Your task to perform on an android device: delete location history Image 0: 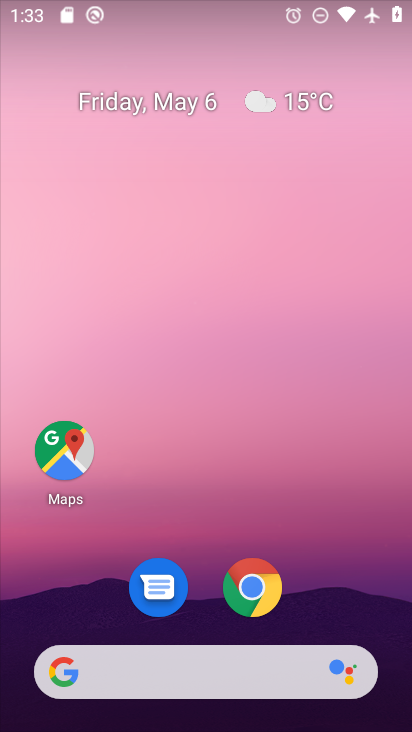
Step 0: drag from (335, 603) to (255, 25)
Your task to perform on an android device: delete location history Image 1: 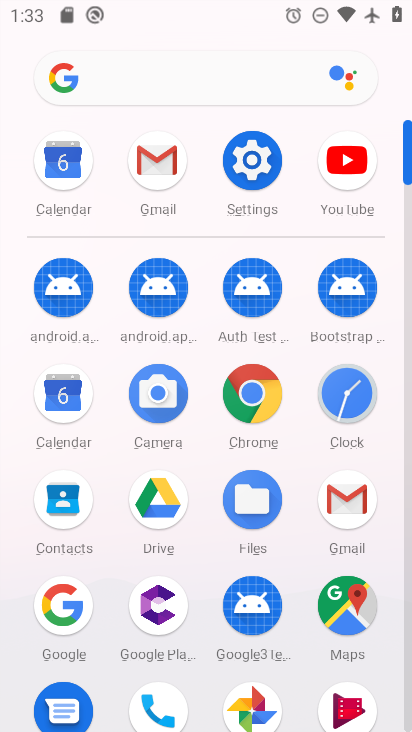
Step 1: click (255, 159)
Your task to perform on an android device: delete location history Image 2: 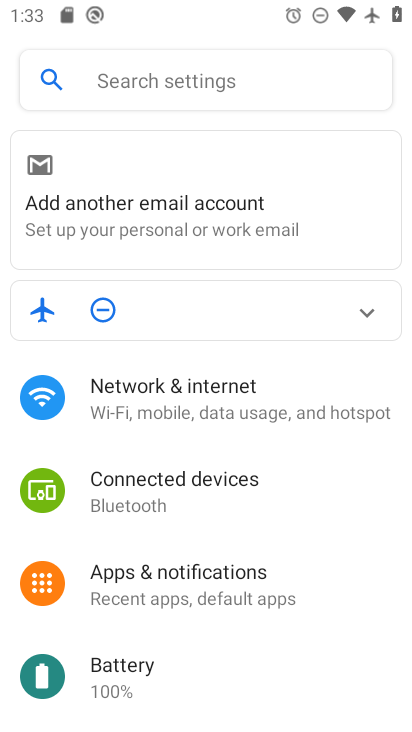
Step 2: drag from (197, 654) to (176, 176)
Your task to perform on an android device: delete location history Image 3: 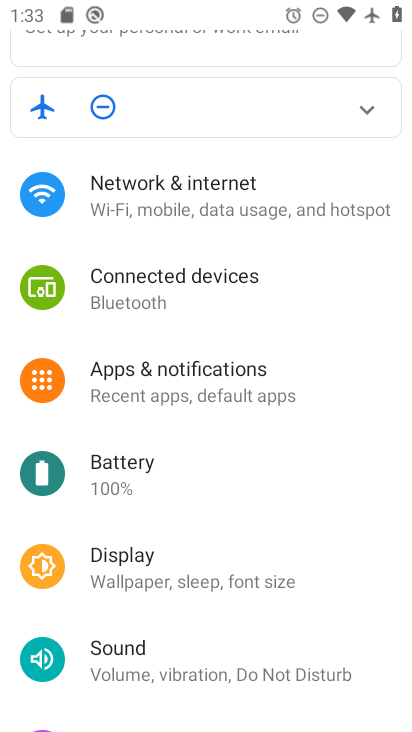
Step 3: drag from (256, 663) to (247, 201)
Your task to perform on an android device: delete location history Image 4: 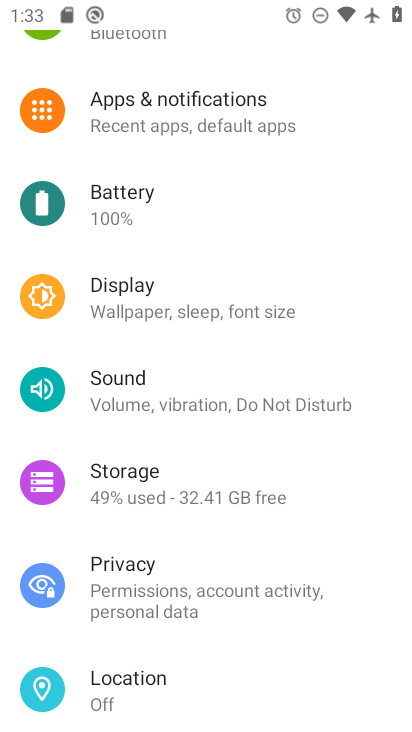
Step 4: click (182, 685)
Your task to perform on an android device: delete location history Image 5: 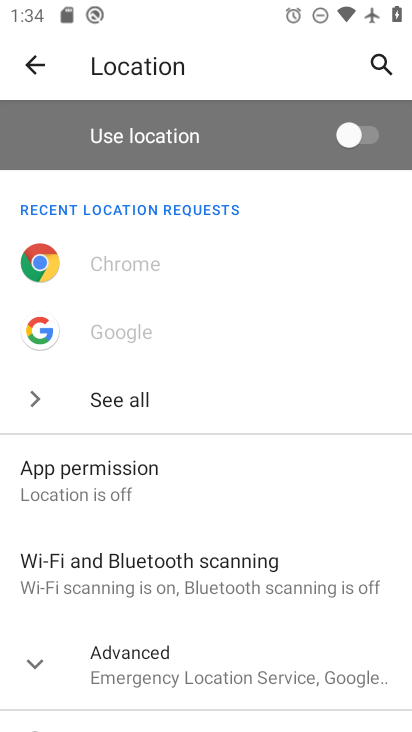
Step 5: click (193, 668)
Your task to perform on an android device: delete location history Image 6: 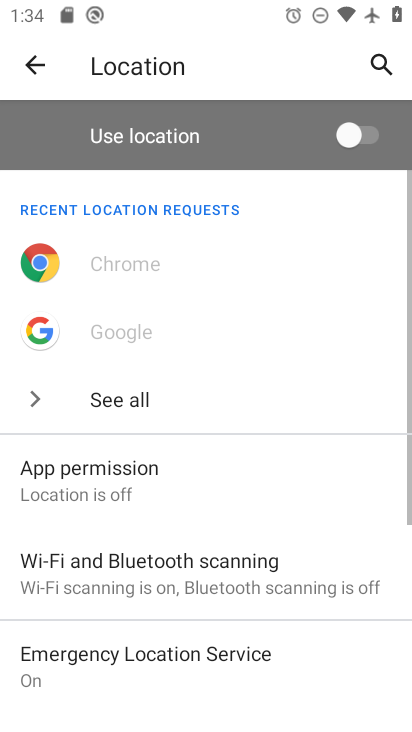
Step 6: drag from (203, 595) to (198, 221)
Your task to perform on an android device: delete location history Image 7: 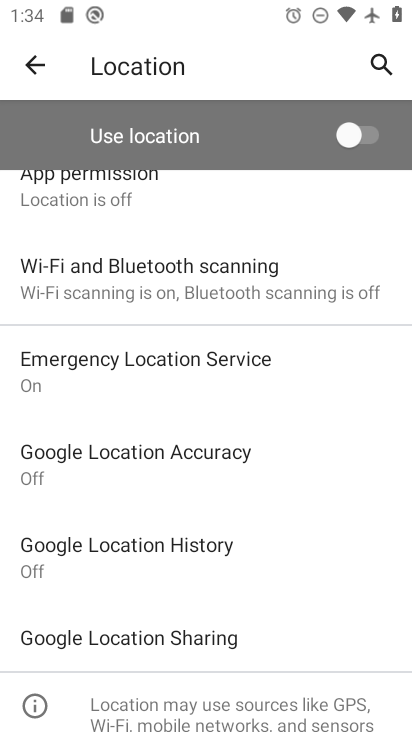
Step 7: click (187, 536)
Your task to perform on an android device: delete location history Image 8: 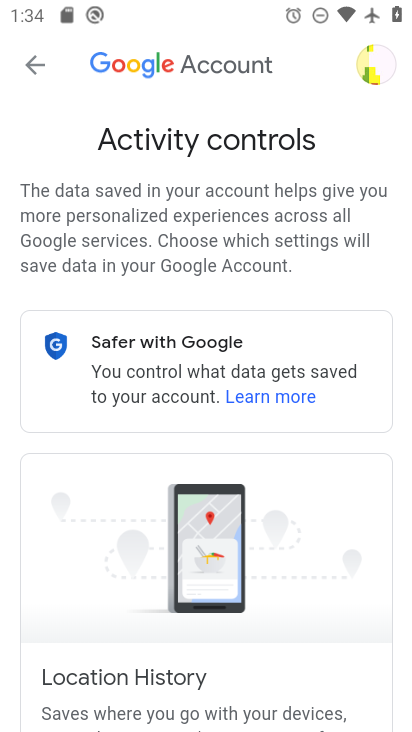
Step 8: drag from (282, 609) to (253, 81)
Your task to perform on an android device: delete location history Image 9: 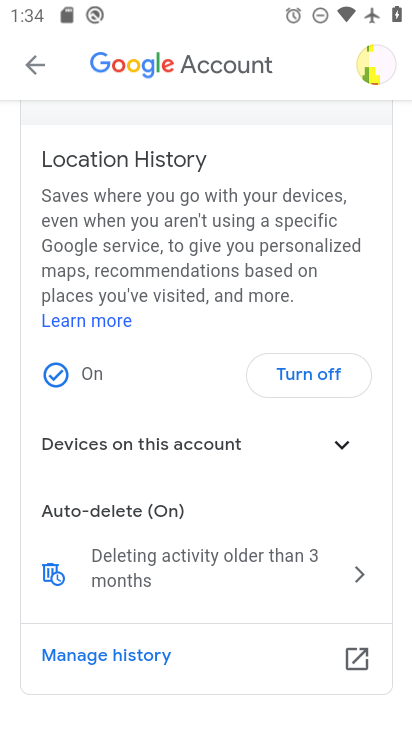
Step 9: click (45, 572)
Your task to perform on an android device: delete location history Image 10: 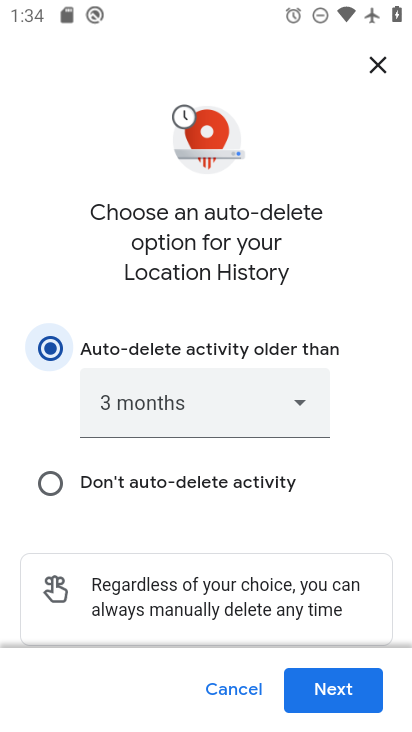
Step 10: click (46, 484)
Your task to perform on an android device: delete location history Image 11: 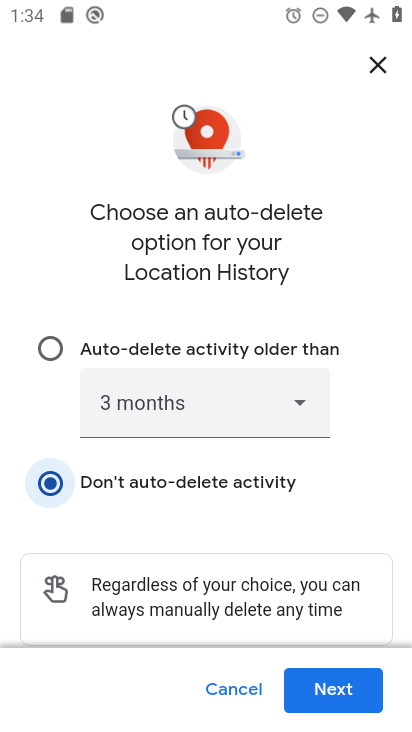
Step 11: click (335, 691)
Your task to perform on an android device: delete location history Image 12: 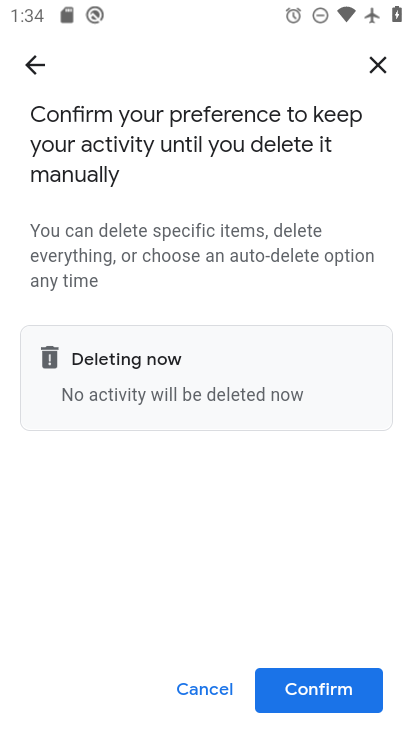
Step 12: click (342, 688)
Your task to perform on an android device: delete location history Image 13: 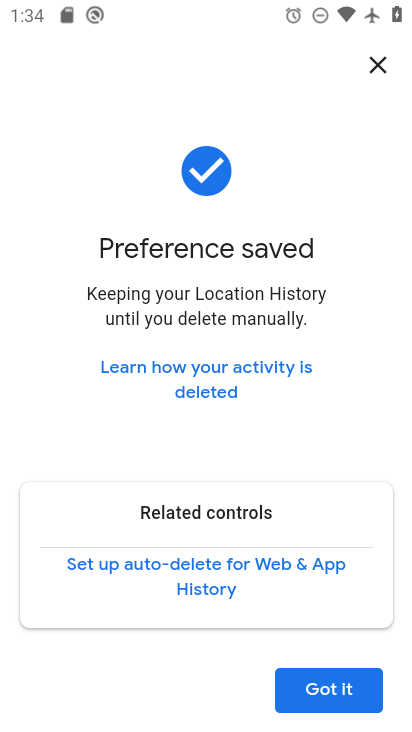
Step 13: click (326, 680)
Your task to perform on an android device: delete location history Image 14: 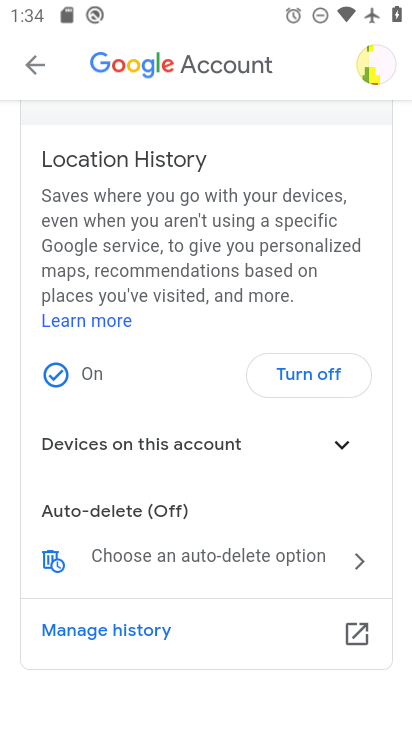
Step 14: task complete